Your task to perform on an android device: Search for vegetarian restaurants on Maps Image 0: 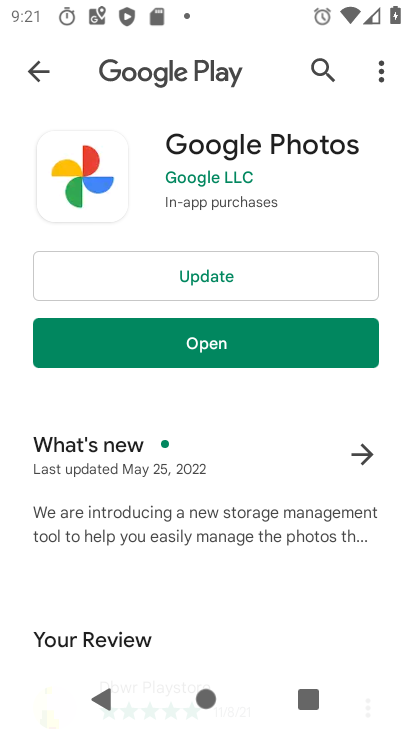
Step 0: press home button
Your task to perform on an android device: Search for vegetarian restaurants on Maps Image 1: 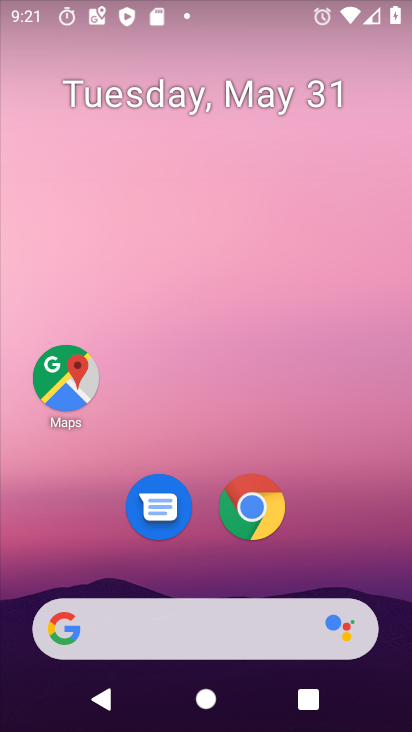
Step 1: click (61, 381)
Your task to perform on an android device: Search for vegetarian restaurants on Maps Image 2: 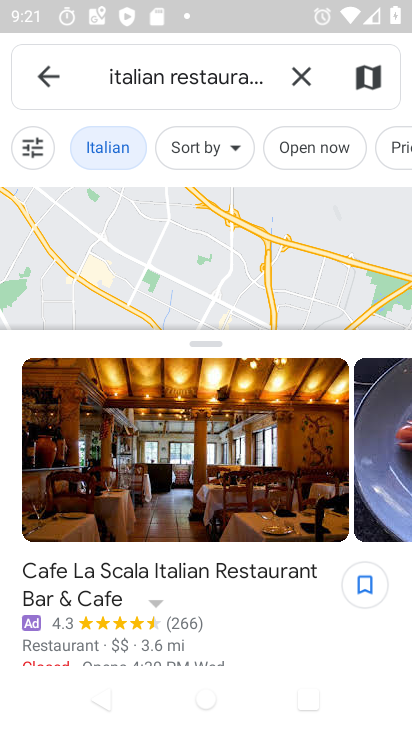
Step 2: click (294, 71)
Your task to perform on an android device: Search for vegetarian restaurants on Maps Image 3: 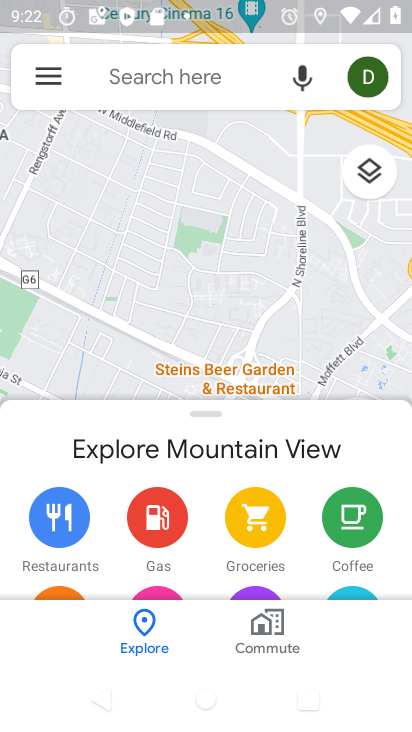
Step 3: click (119, 77)
Your task to perform on an android device: Search for vegetarian restaurants on Maps Image 4: 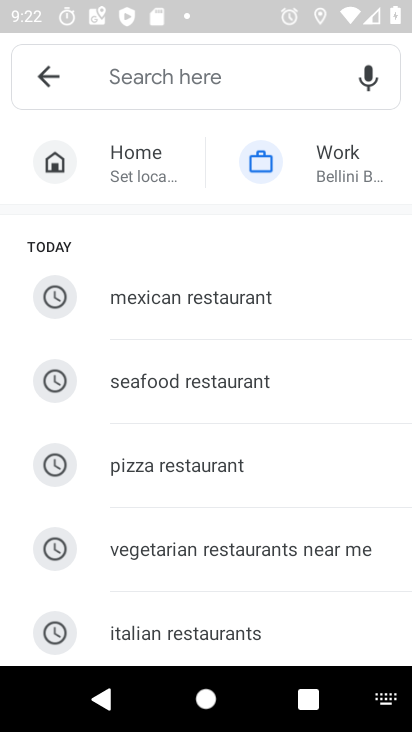
Step 4: type "vegetarian restaurants"
Your task to perform on an android device: Search for vegetarian restaurants on Maps Image 5: 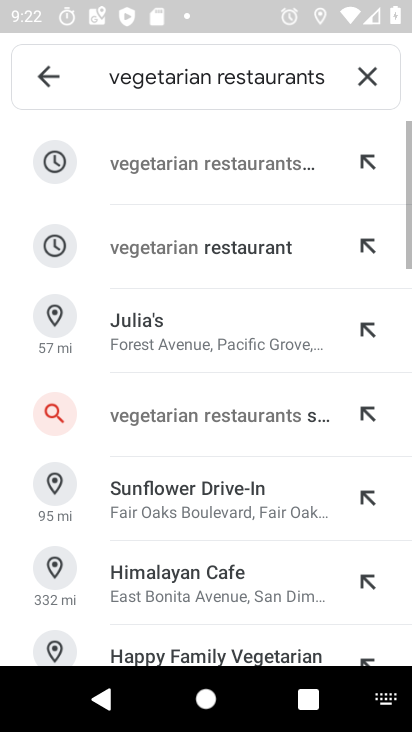
Step 5: click (253, 164)
Your task to perform on an android device: Search for vegetarian restaurants on Maps Image 6: 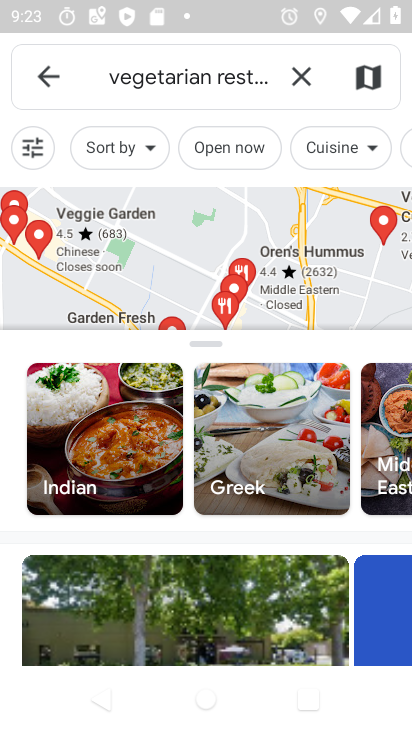
Step 6: task complete